Your task to perform on an android device: open app "Skype" (install if not already installed) Image 0: 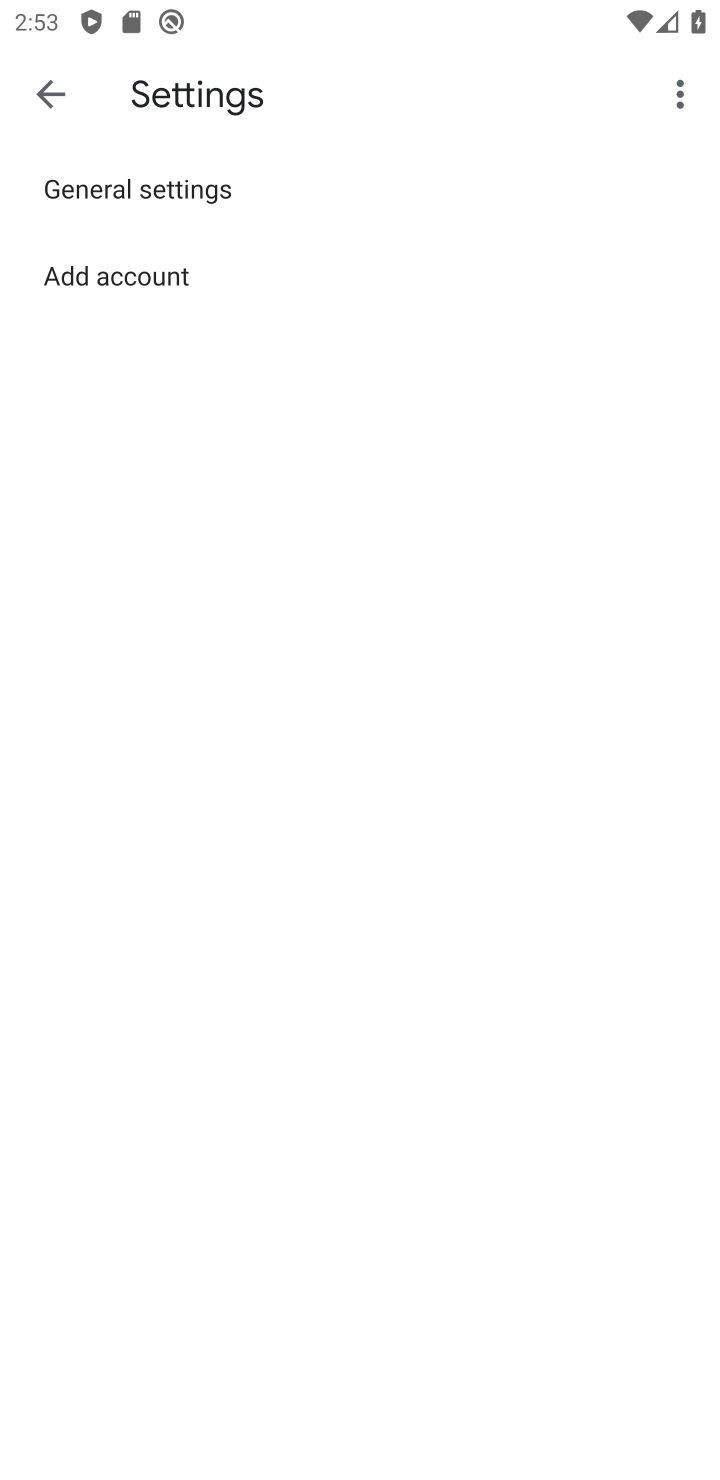
Step 0: press home button
Your task to perform on an android device: open app "Skype" (install if not already installed) Image 1: 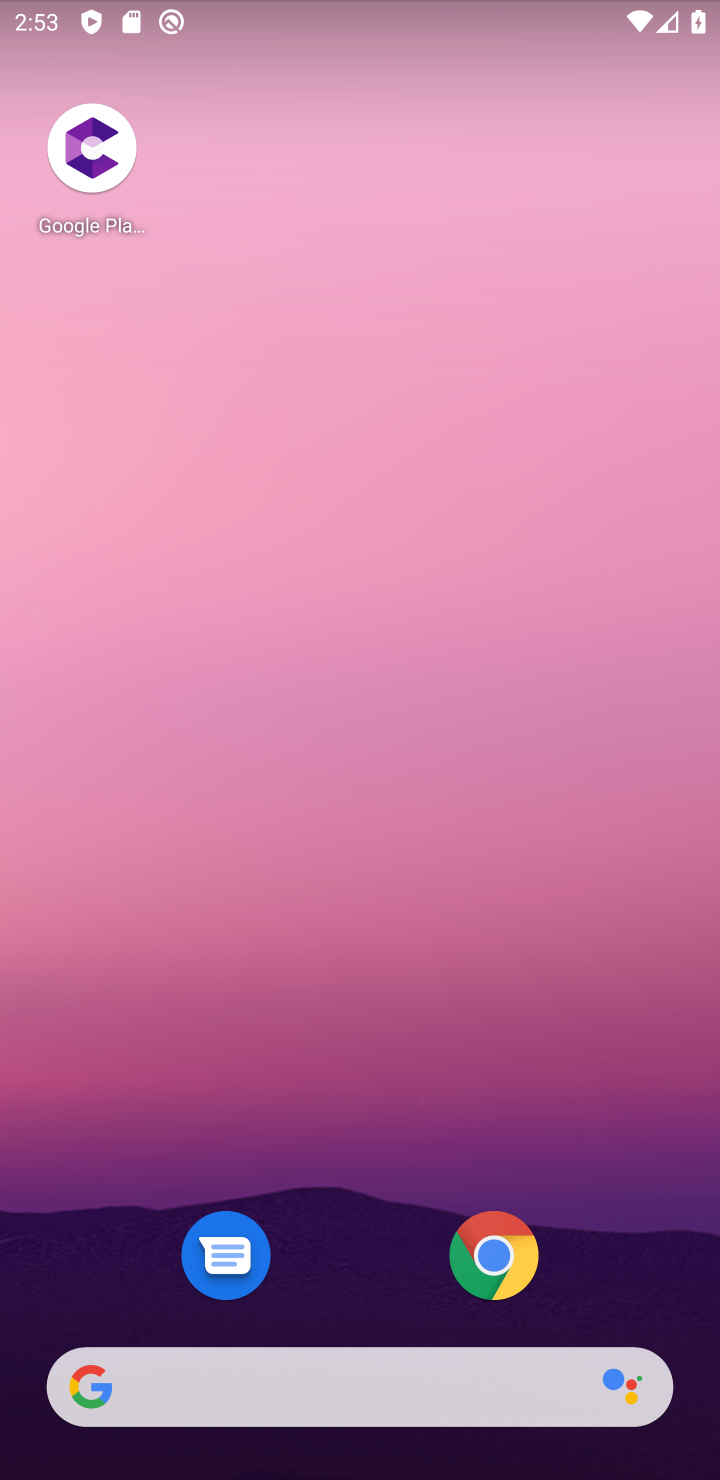
Step 1: drag from (401, 1194) to (420, 60)
Your task to perform on an android device: open app "Skype" (install if not already installed) Image 2: 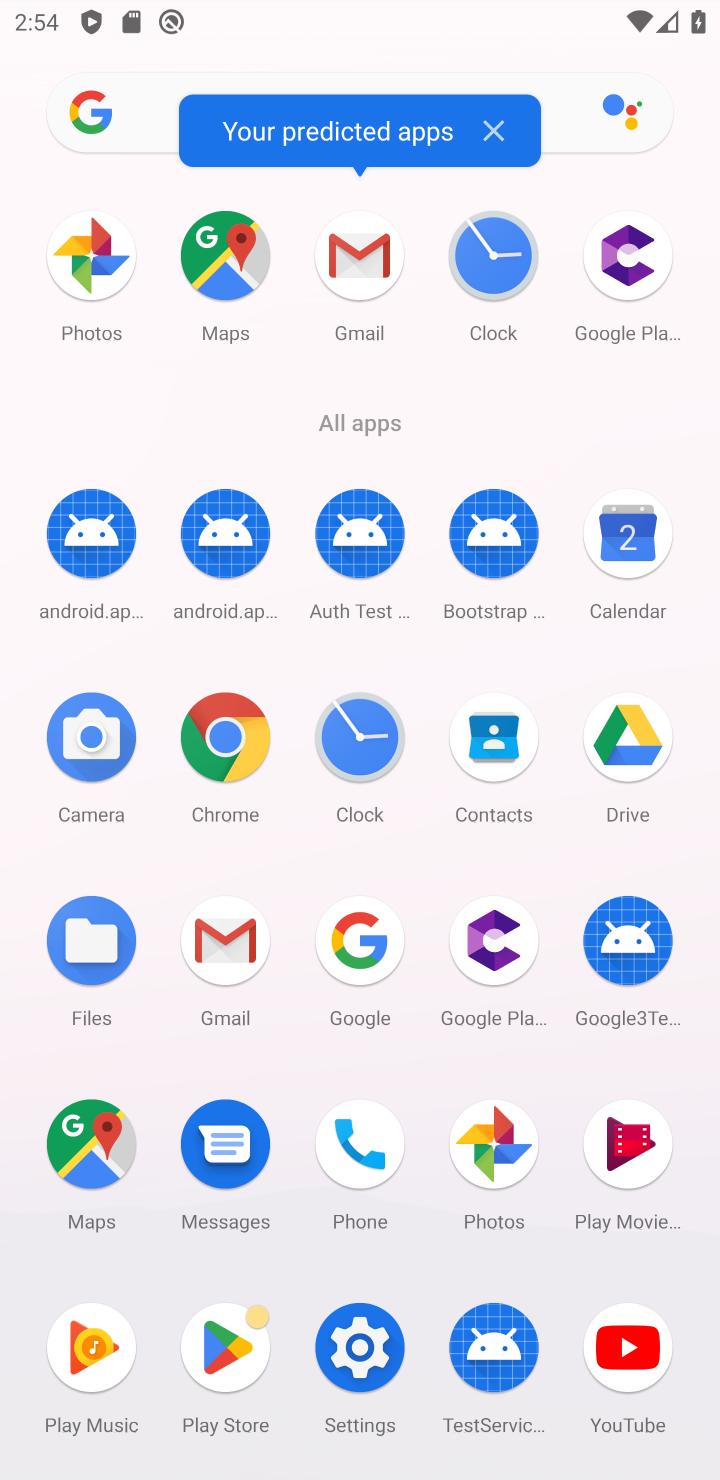
Step 2: click (237, 1320)
Your task to perform on an android device: open app "Skype" (install if not already installed) Image 3: 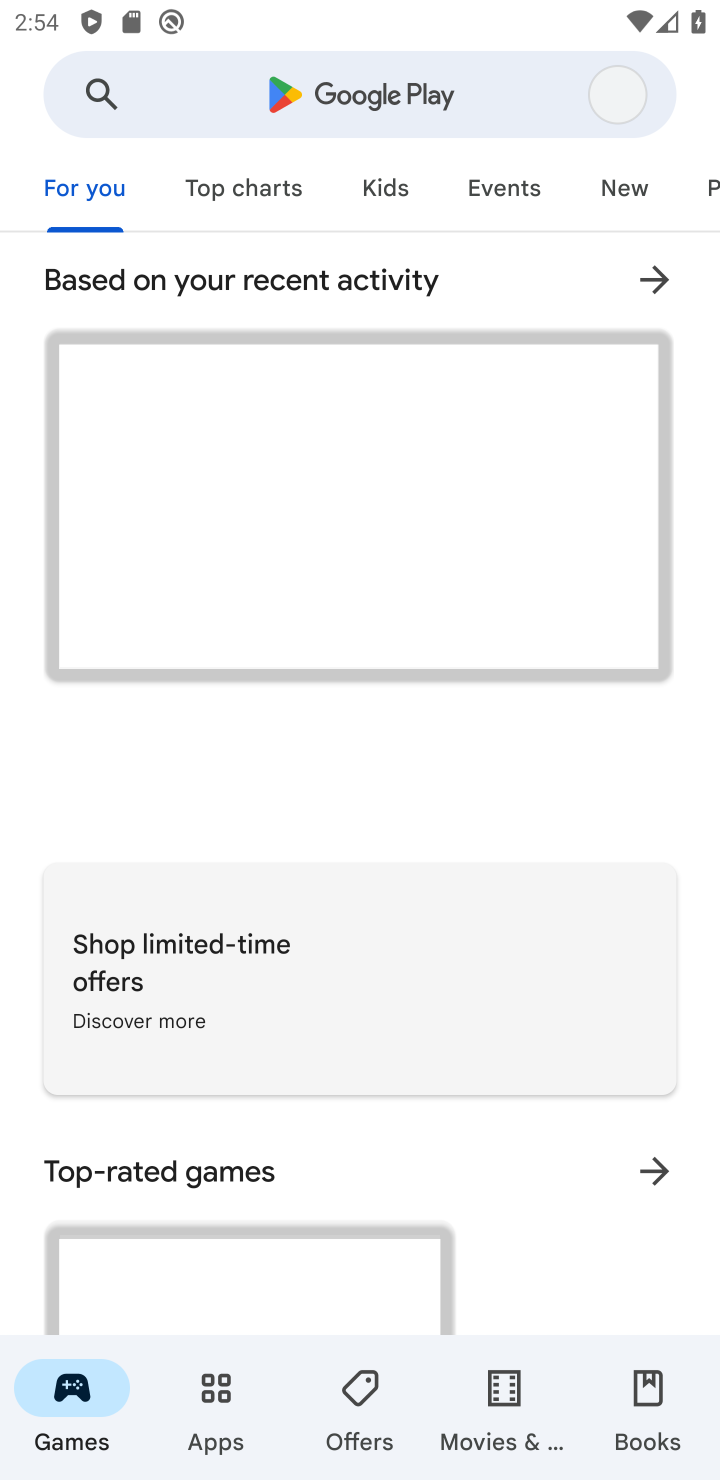
Step 3: click (491, 107)
Your task to perform on an android device: open app "Skype" (install if not already installed) Image 4: 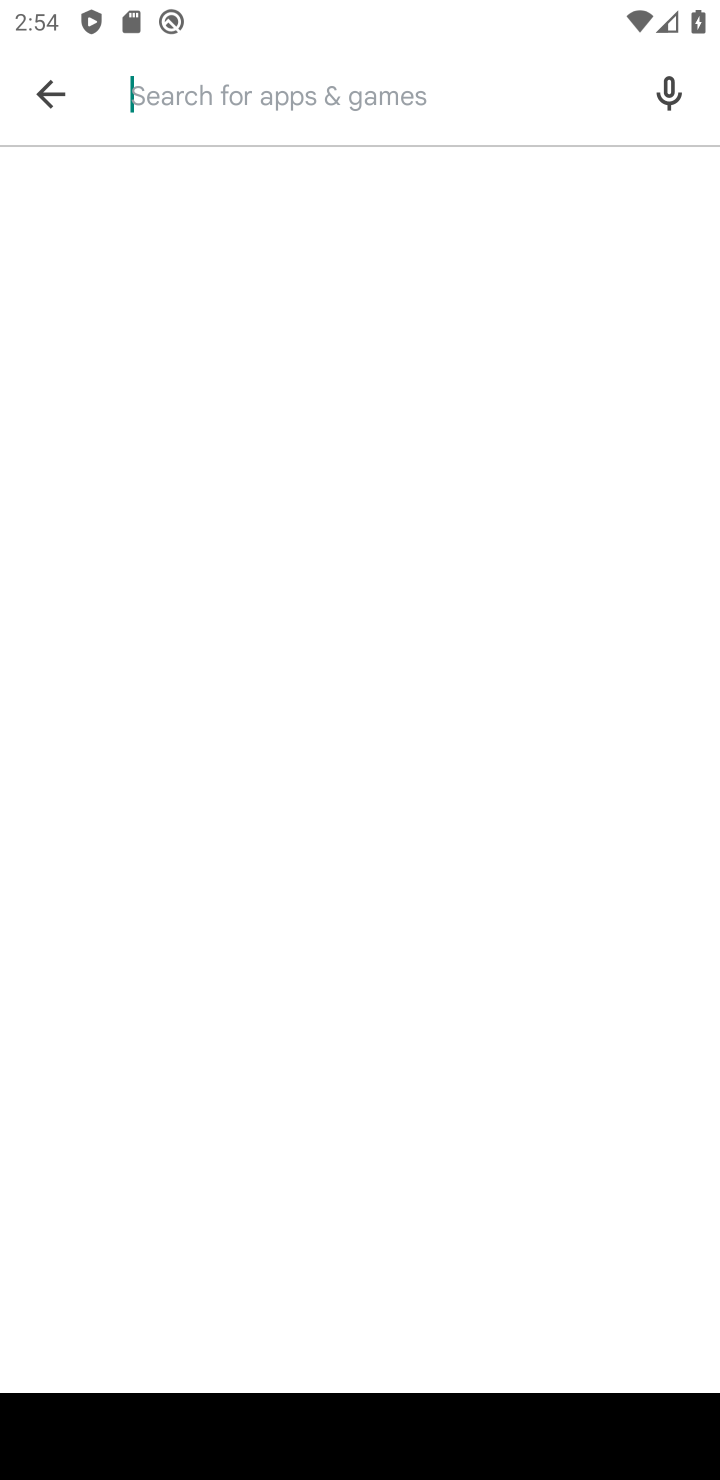
Step 4: type "skype"
Your task to perform on an android device: open app "Skype" (install if not already installed) Image 5: 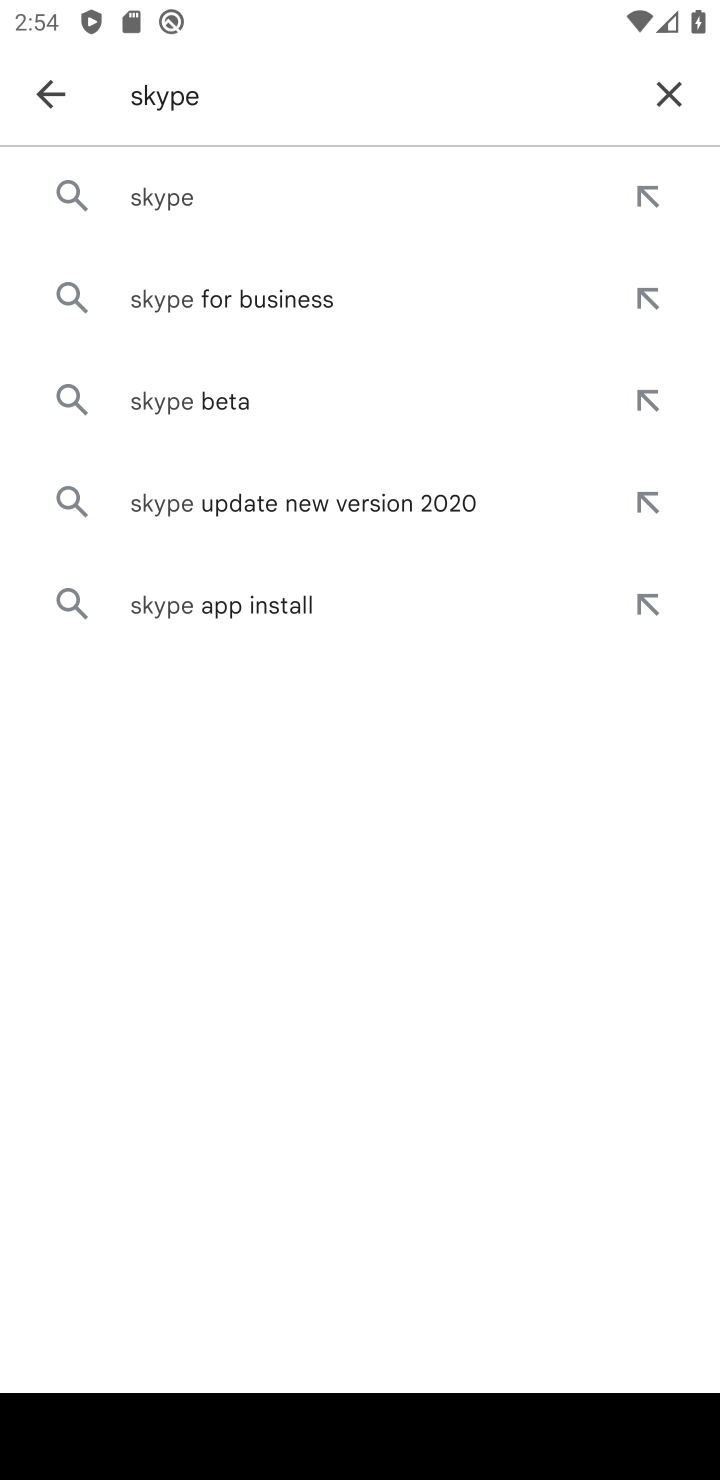
Step 5: click (299, 205)
Your task to perform on an android device: open app "Skype" (install if not already installed) Image 6: 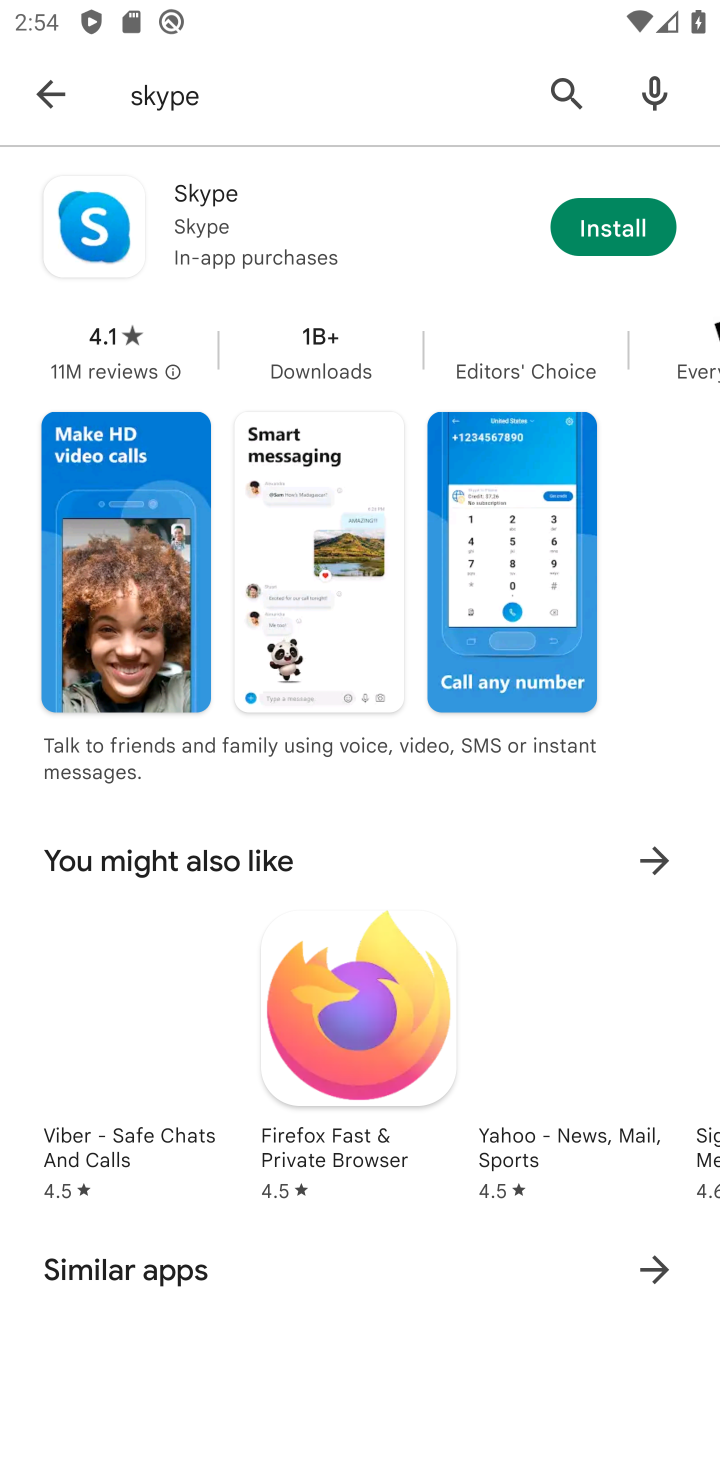
Step 6: click (299, 205)
Your task to perform on an android device: open app "Skype" (install if not already installed) Image 7: 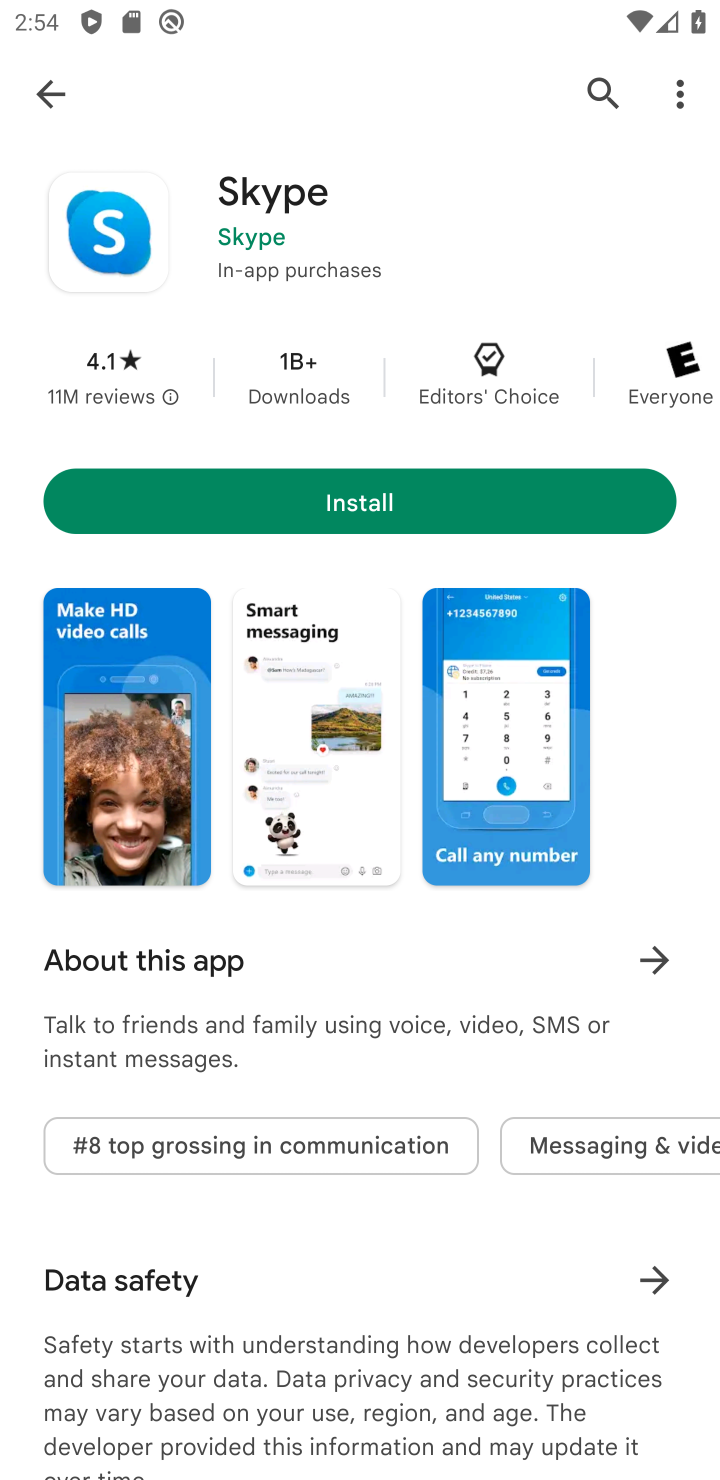
Step 7: click (231, 508)
Your task to perform on an android device: open app "Skype" (install if not already installed) Image 8: 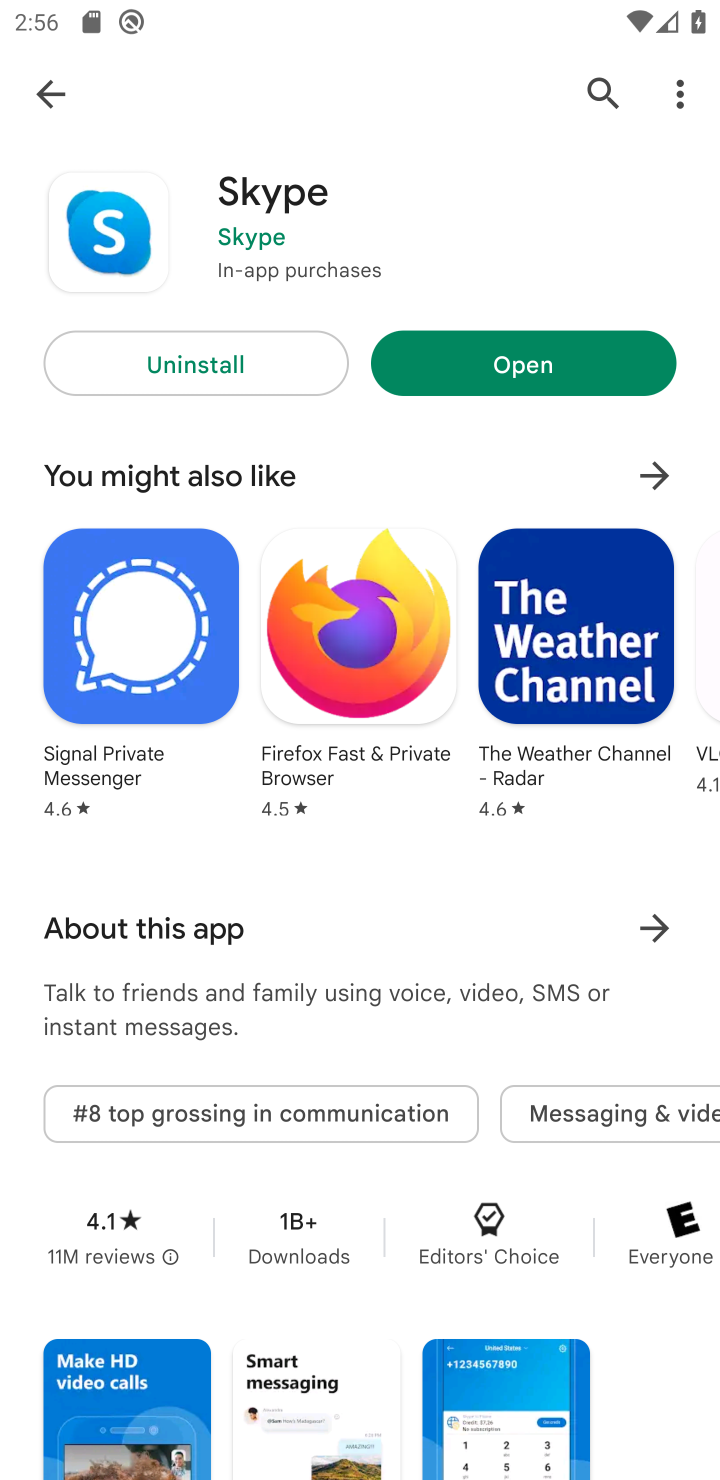
Step 8: click (583, 371)
Your task to perform on an android device: open app "Skype" (install if not already installed) Image 9: 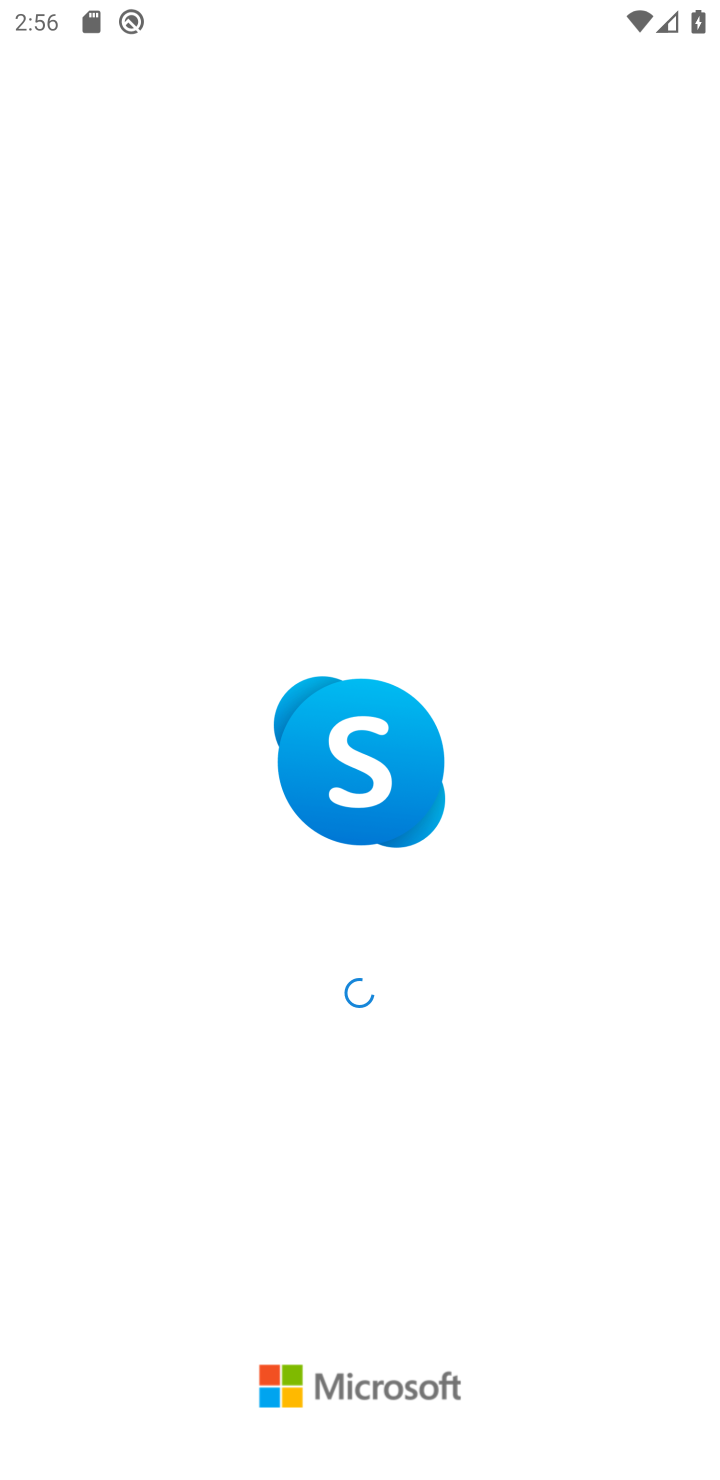
Step 9: task complete